Your task to perform on an android device: Open maps Image 0: 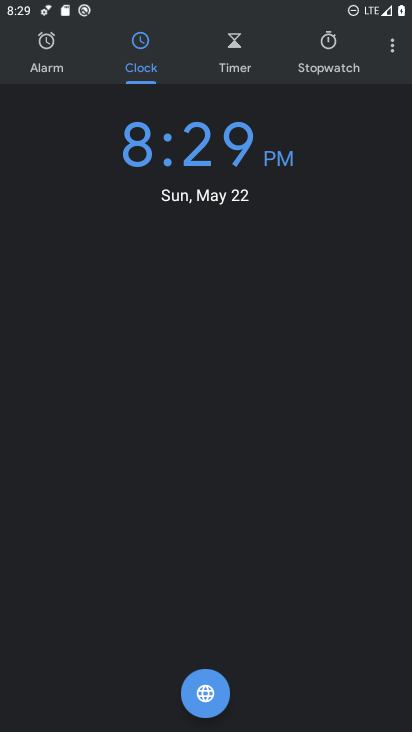
Step 0: press home button
Your task to perform on an android device: Open maps Image 1: 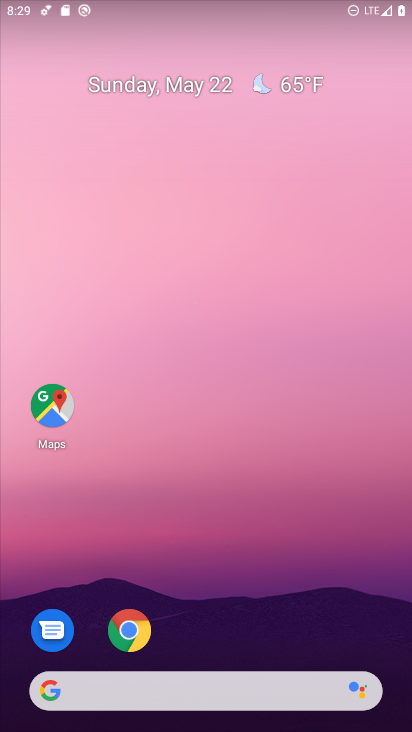
Step 1: click (58, 418)
Your task to perform on an android device: Open maps Image 2: 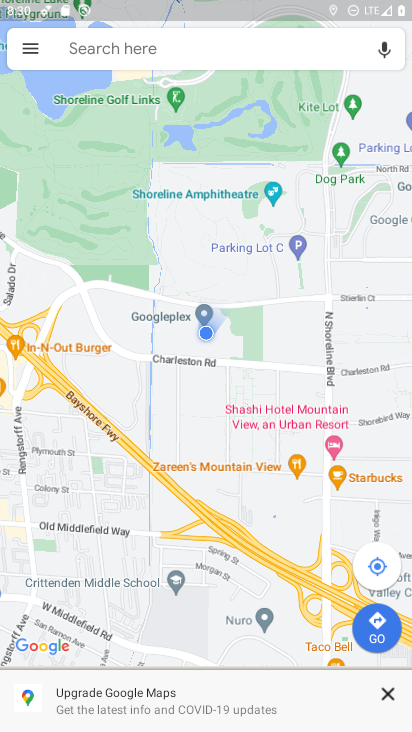
Step 2: task complete